Your task to perform on an android device: Clear the shopping cart on walmart. Search for "razer naga" on walmart, select the first entry, add it to the cart, then select checkout. Image 0: 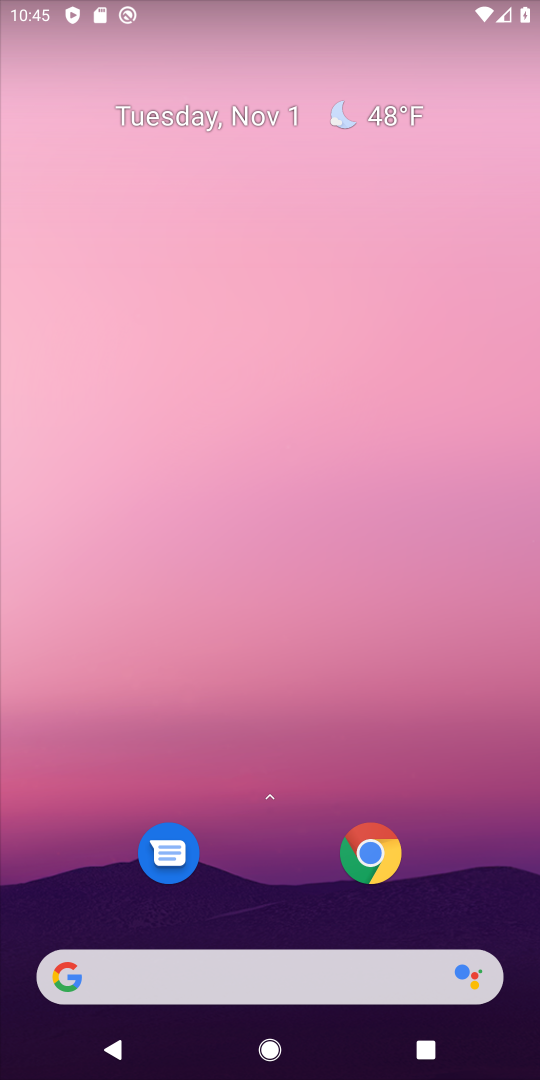
Step 0: drag from (324, 1026) to (307, 236)
Your task to perform on an android device: Clear the shopping cart on walmart. Search for "razer naga" on walmart, select the first entry, add it to the cart, then select checkout. Image 1: 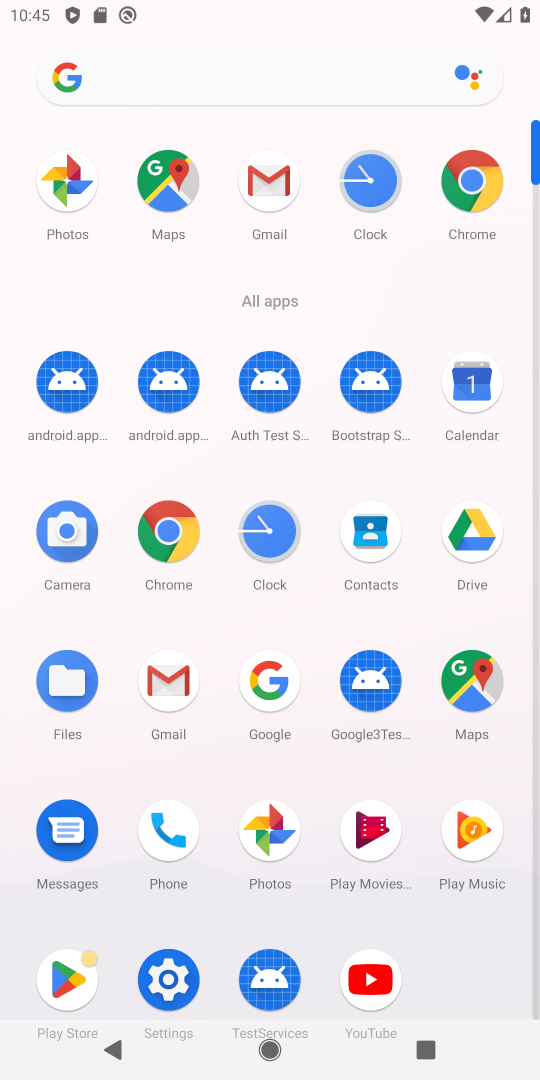
Step 1: click (156, 529)
Your task to perform on an android device: Clear the shopping cart on walmart. Search for "razer naga" on walmart, select the first entry, add it to the cart, then select checkout. Image 2: 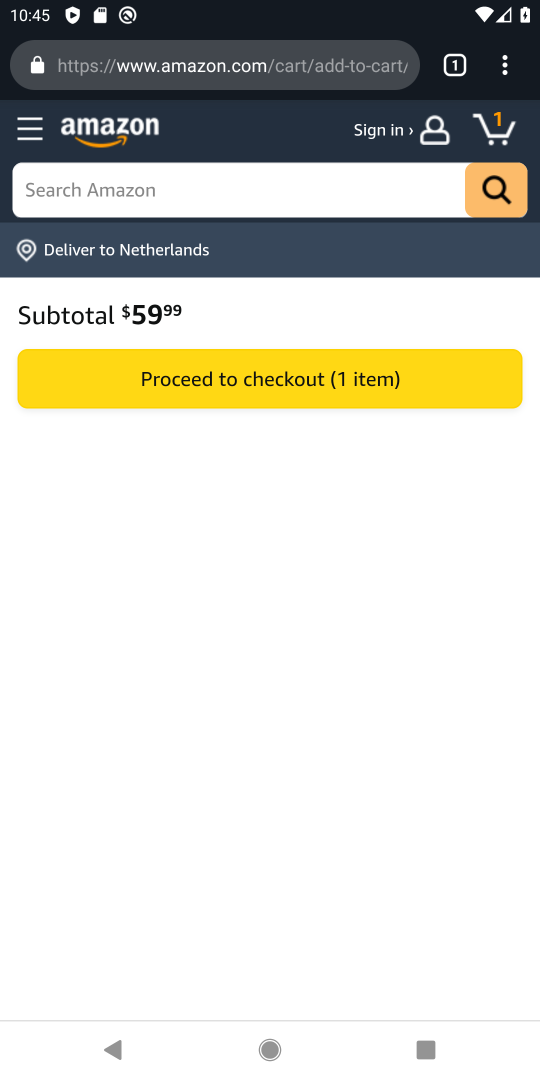
Step 2: click (254, 67)
Your task to perform on an android device: Clear the shopping cart on walmart. Search for "razer naga" on walmart, select the first entry, add it to the cart, then select checkout. Image 3: 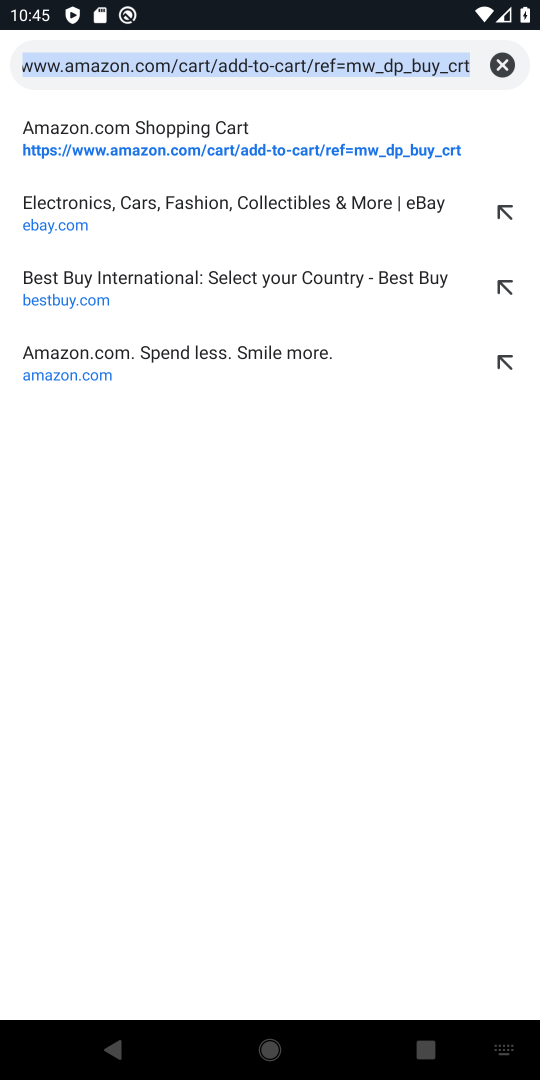
Step 3: click (497, 61)
Your task to perform on an android device: Clear the shopping cart on walmart. Search for "razer naga" on walmart, select the first entry, add it to the cart, then select checkout. Image 4: 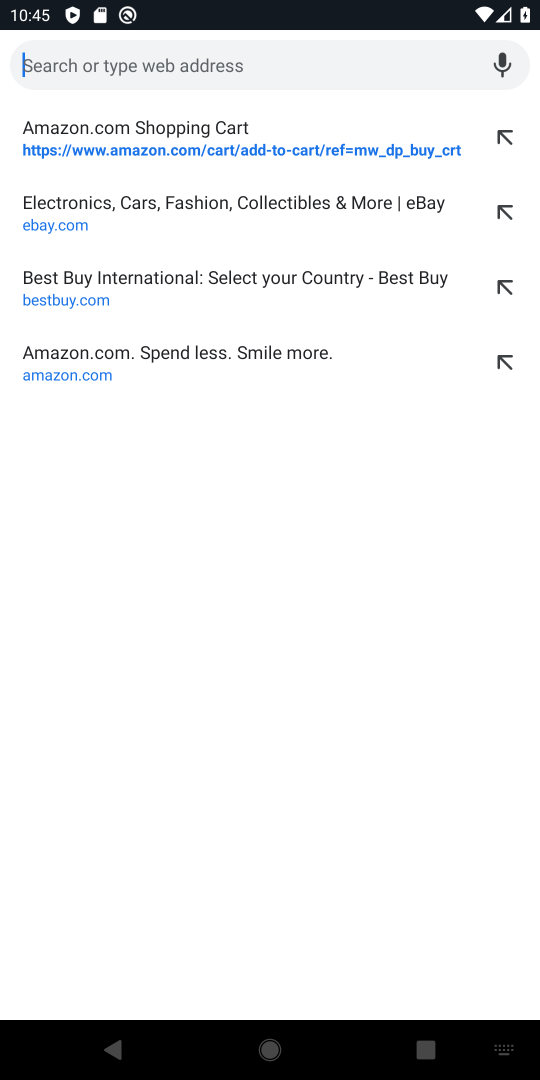
Step 4: type "walmart"
Your task to perform on an android device: Clear the shopping cart on walmart. Search for "razer naga" on walmart, select the first entry, add it to the cart, then select checkout. Image 5: 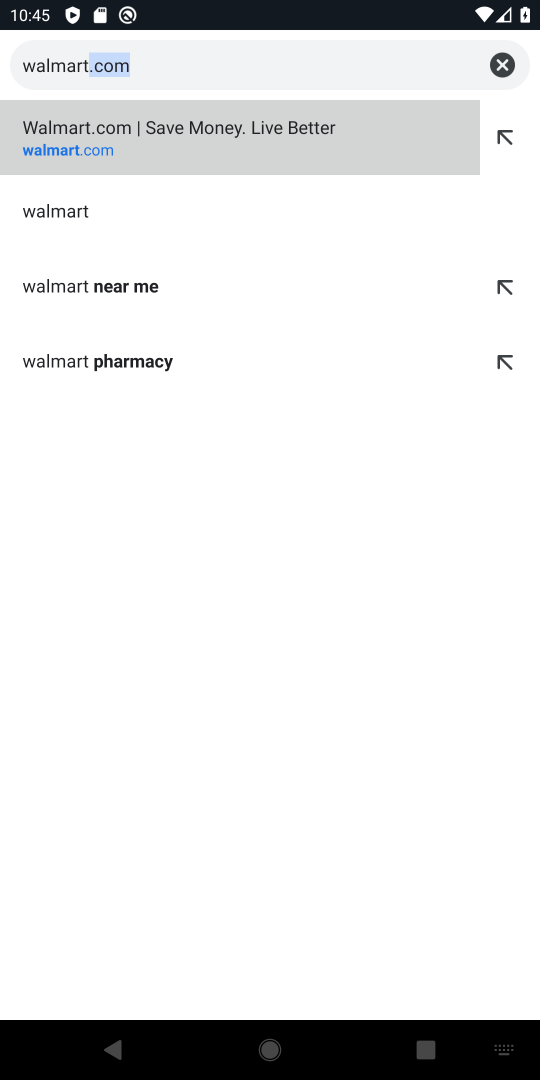
Step 5: click (83, 156)
Your task to perform on an android device: Clear the shopping cart on walmart. Search for "razer naga" on walmart, select the first entry, add it to the cart, then select checkout. Image 6: 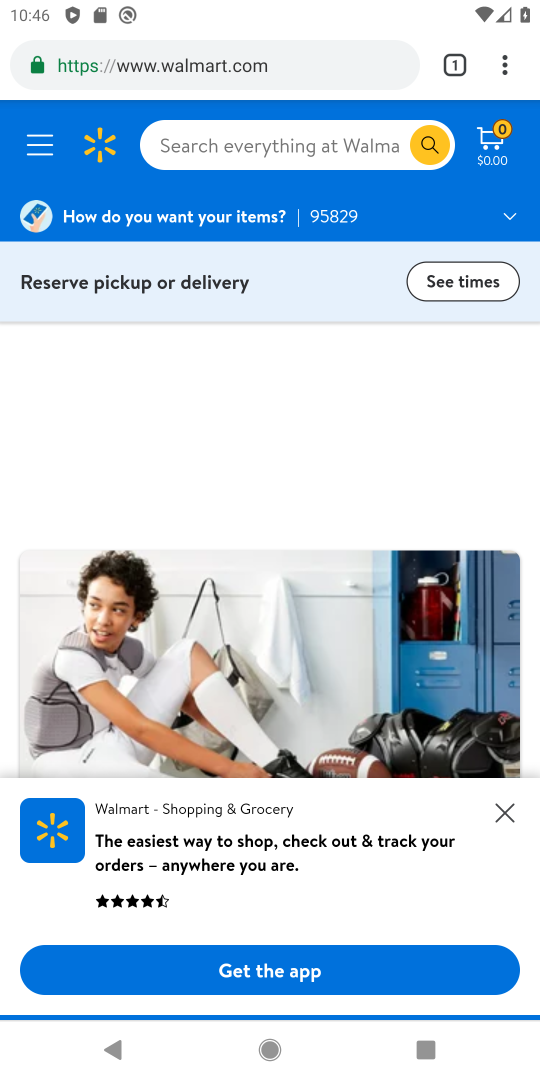
Step 6: click (336, 137)
Your task to perform on an android device: Clear the shopping cart on walmart. Search for "razer naga" on walmart, select the first entry, add it to the cart, then select checkout. Image 7: 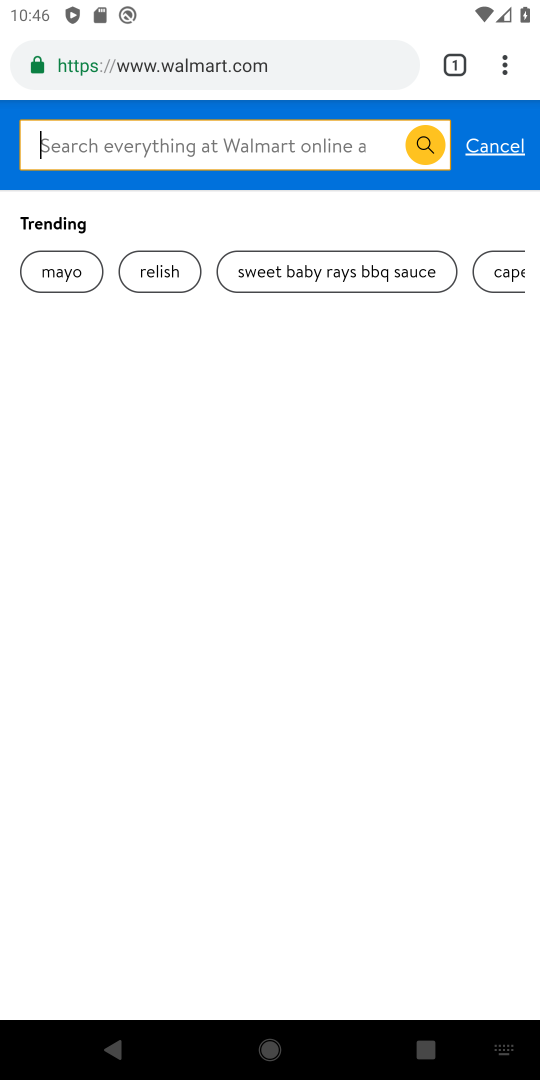
Step 7: type "razer naga"
Your task to perform on an android device: Clear the shopping cart on walmart. Search for "razer naga" on walmart, select the first entry, add it to the cart, then select checkout. Image 8: 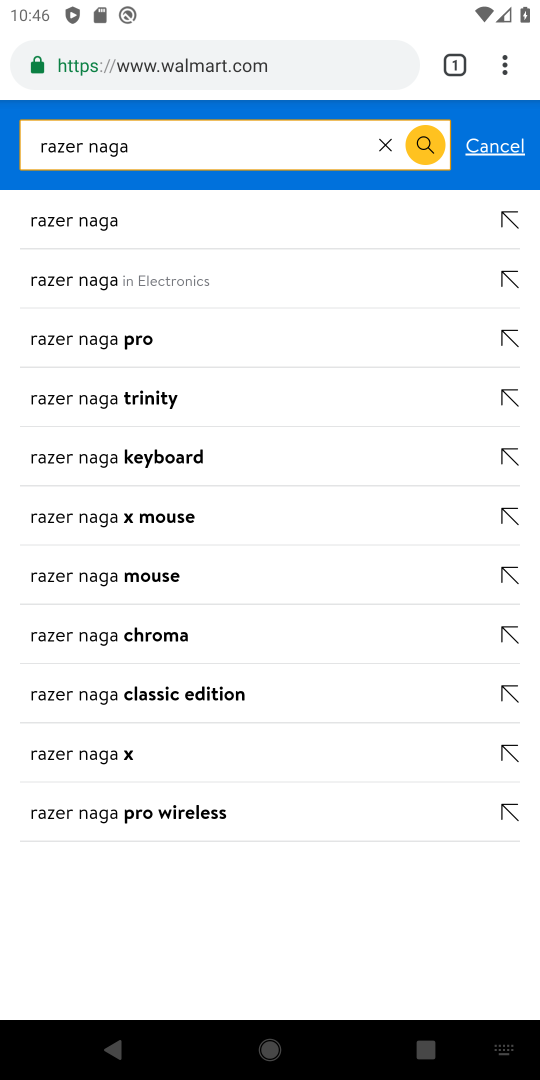
Step 8: click (77, 225)
Your task to perform on an android device: Clear the shopping cart on walmart. Search for "razer naga" on walmart, select the first entry, add it to the cart, then select checkout. Image 9: 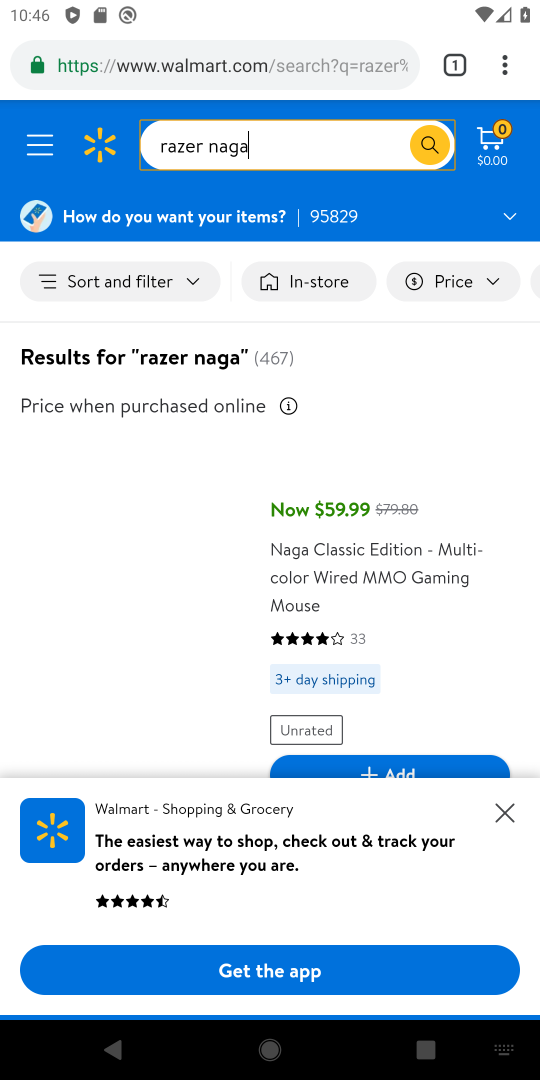
Step 9: drag from (341, 665) to (379, 365)
Your task to perform on an android device: Clear the shopping cart on walmart. Search for "razer naga" on walmart, select the first entry, add it to the cart, then select checkout. Image 10: 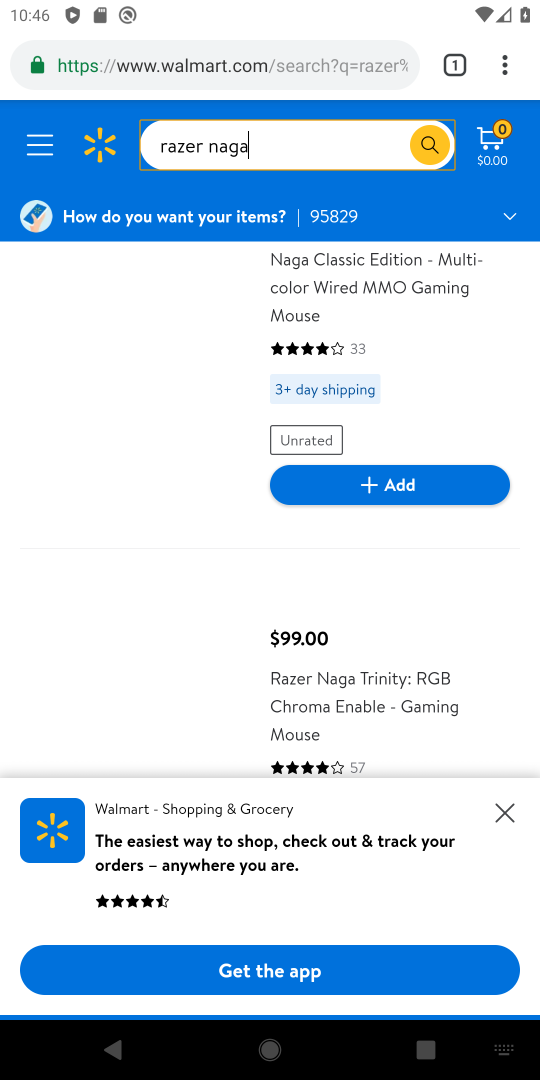
Step 10: click (240, 340)
Your task to perform on an android device: Clear the shopping cart on walmart. Search for "razer naga" on walmart, select the first entry, add it to the cart, then select checkout. Image 11: 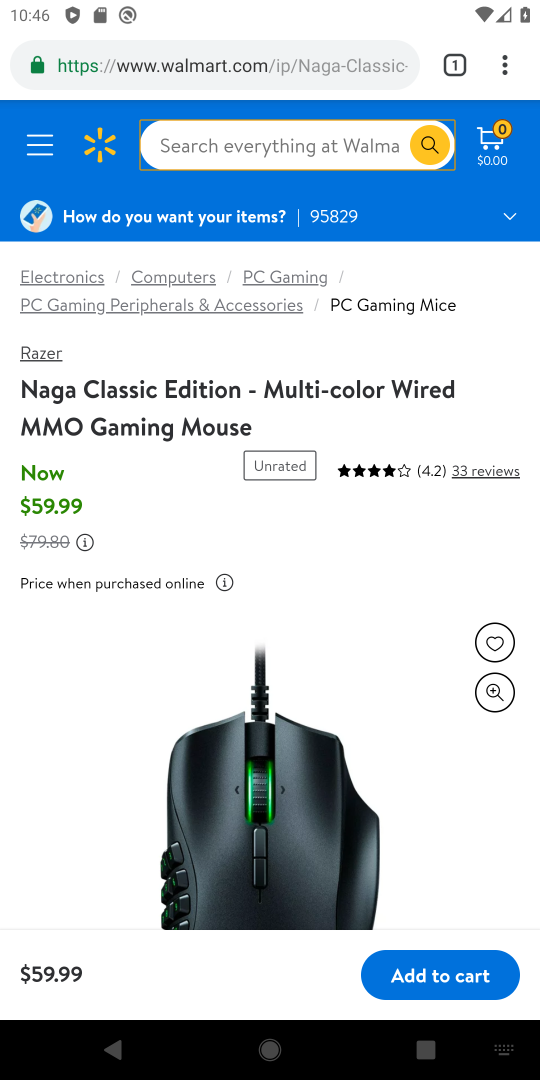
Step 11: drag from (331, 706) to (380, 429)
Your task to perform on an android device: Clear the shopping cart on walmart. Search for "razer naga" on walmart, select the first entry, add it to the cart, then select checkout. Image 12: 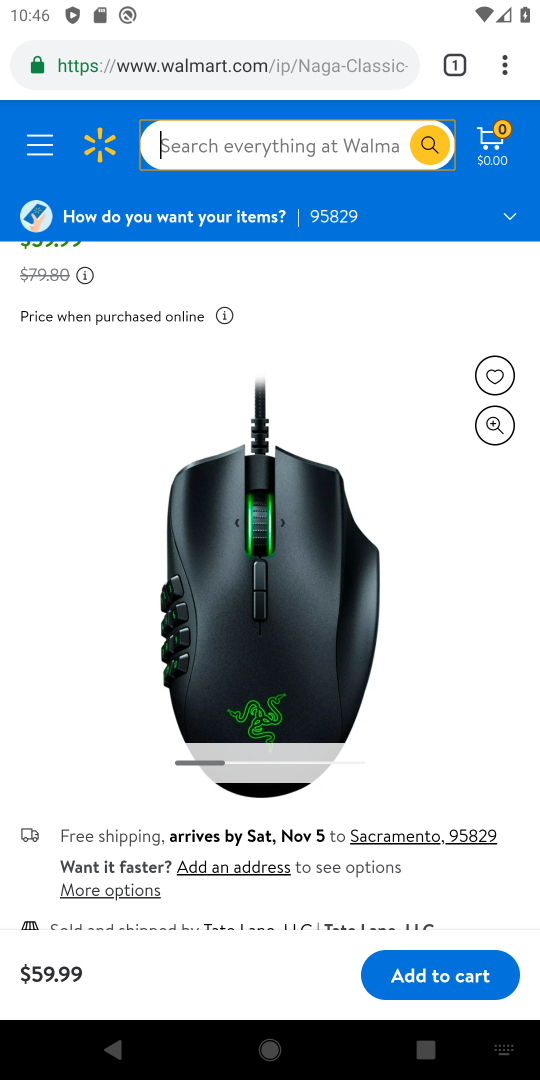
Step 12: click (450, 979)
Your task to perform on an android device: Clear the shopping cart on walmart. Search for "razer naga" on walmart, select the first entry, add it to the cart, then select checkout. Image 13: 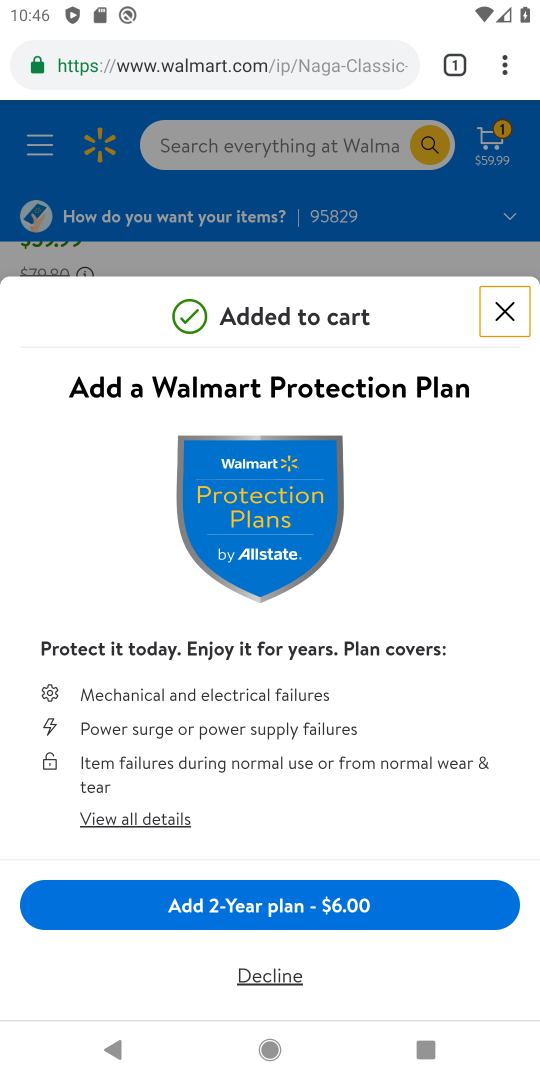
Step 13: task complete